Your task to perform on an android device: check google app version Image 0: 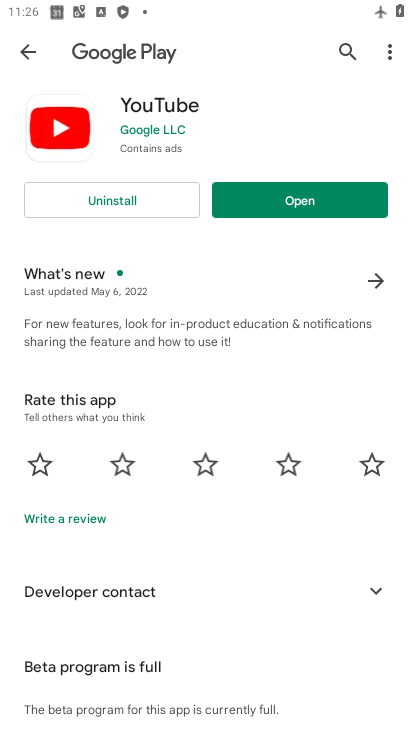
Step 0: press home button
Your task to perform on an android device: check google app version Image 1: 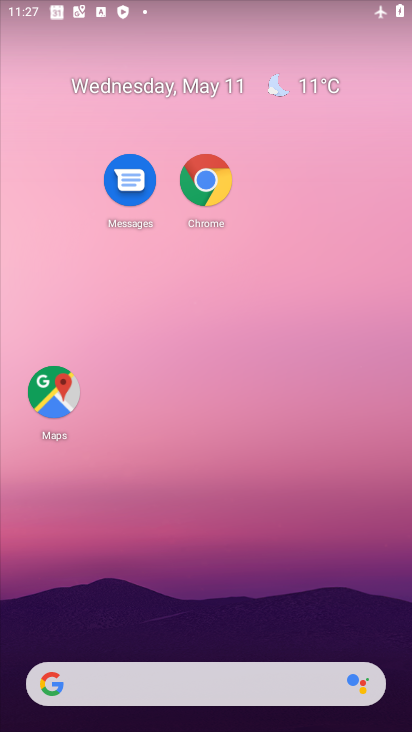
Step 1: drag from (344, 534) to (297, 143)
Your task to perform on an android device: check google app version Image 2: 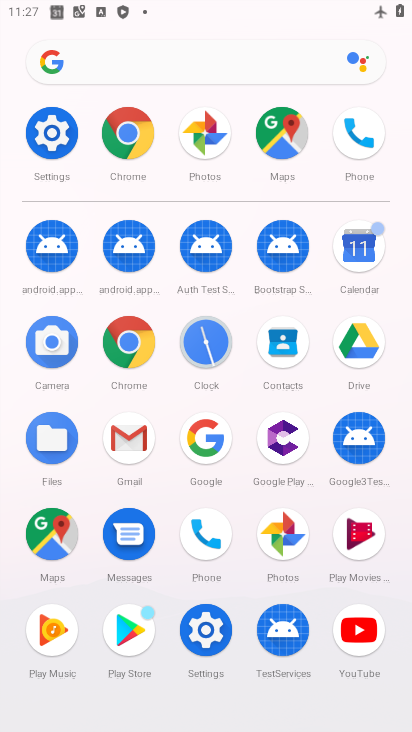
Step 2: click (216, 431)
Your task to perform on an android device: check google app version Image 3: 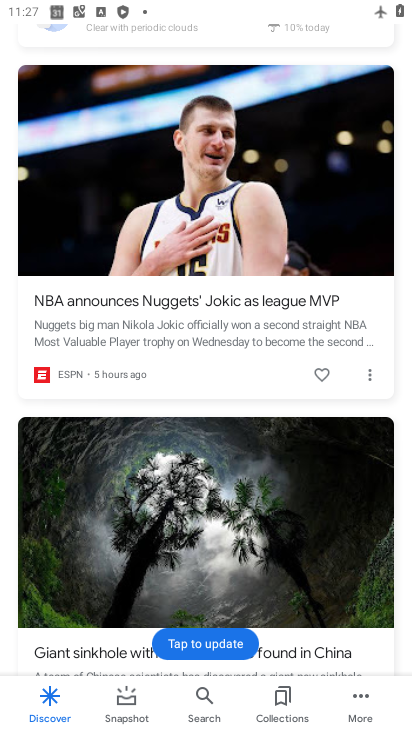
Step 3: click (370, 702)
Your task to perform on an android device: check google app version Image 4: 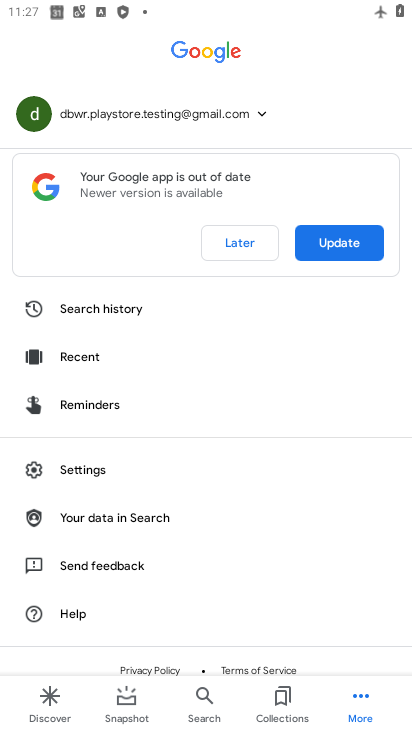
Step 4: click (179, 625)
Your task to perform on an android device: check google app version Image 5: 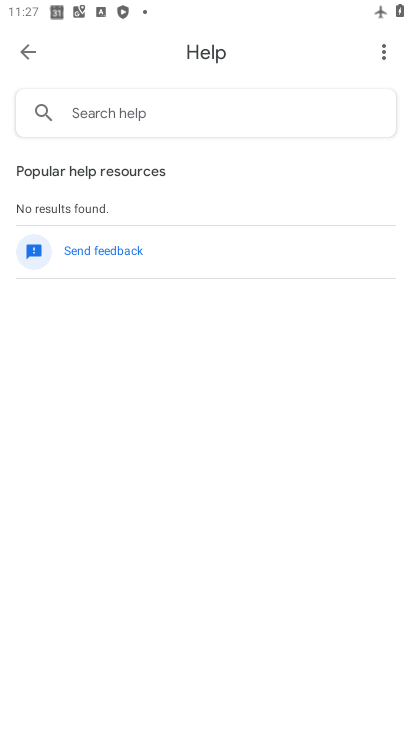
Step 5: press back button
Your task to perform on an android device: check google app version Image 6: 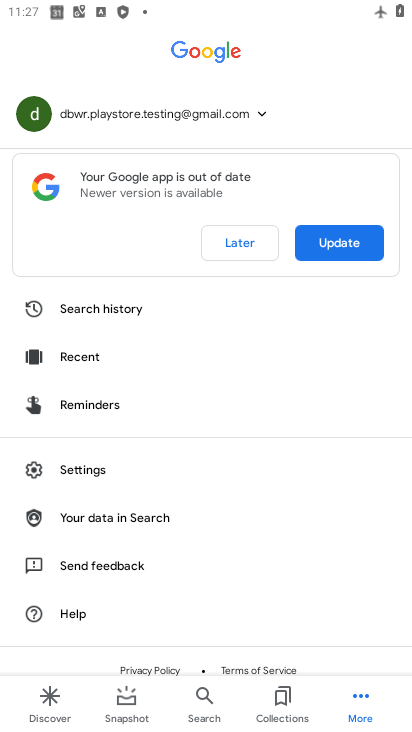
Step 6: click (81, 467)
Your task to perform on an android device: check google app version Image 7: 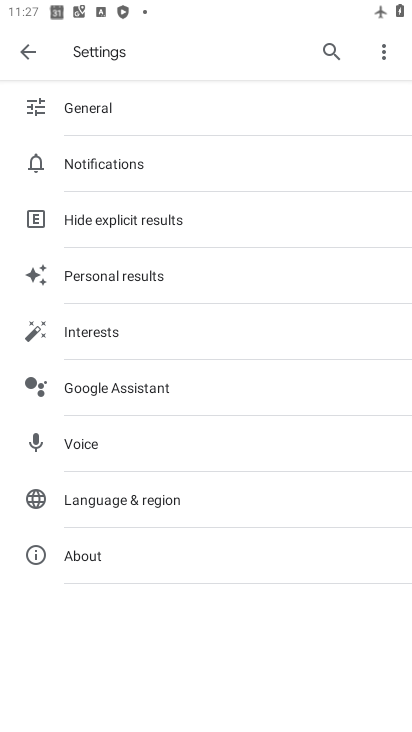
Step 7: click (111, 557)
Your task to perform on an android device: check google app version Image 8: 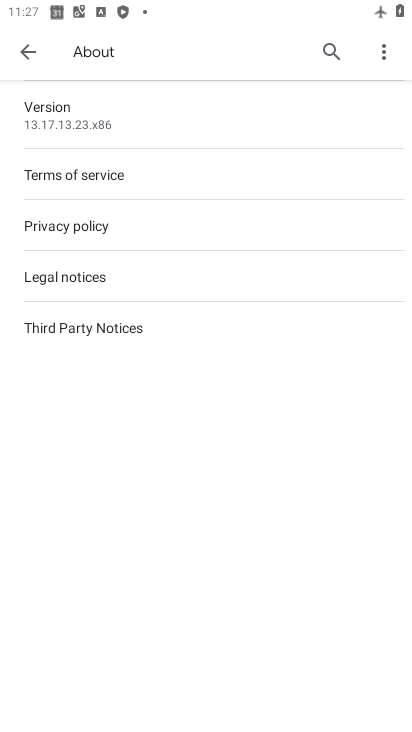
Step 8: click (211, 142)
Your task to perform on an android device: check google app version Image 9: 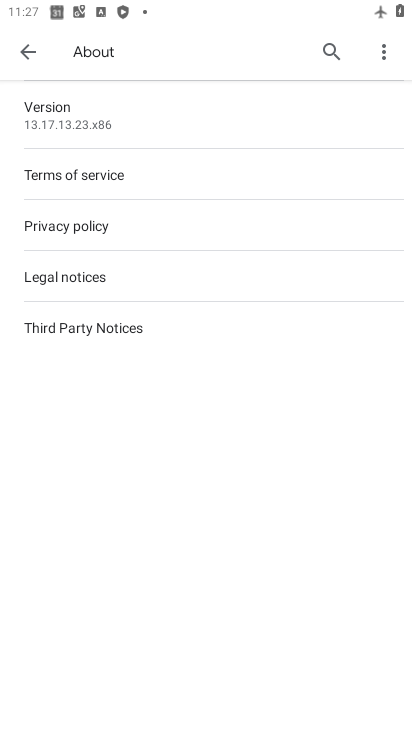
Step 9: task complete